Your task to perform on an android device: find photos in the google photos app Image 0: 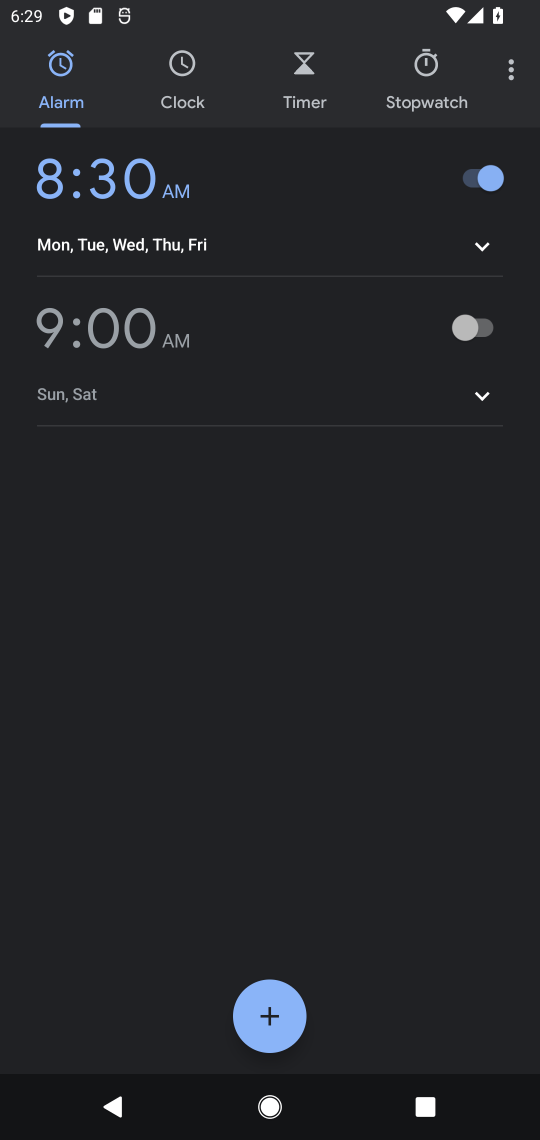
Step 0: press home button
Your task to perform on an android device: find photos in the google photos app Image 1: 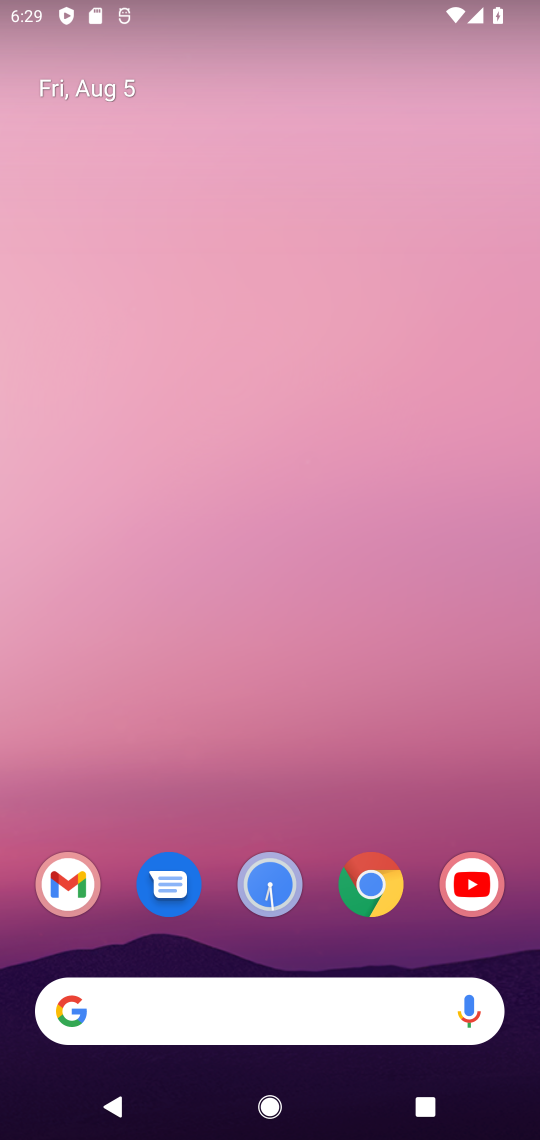
Step 1: drag from (326, 841) to (119, 3)
Your task to perform on an android device: find photos in the google photos app Image 2: 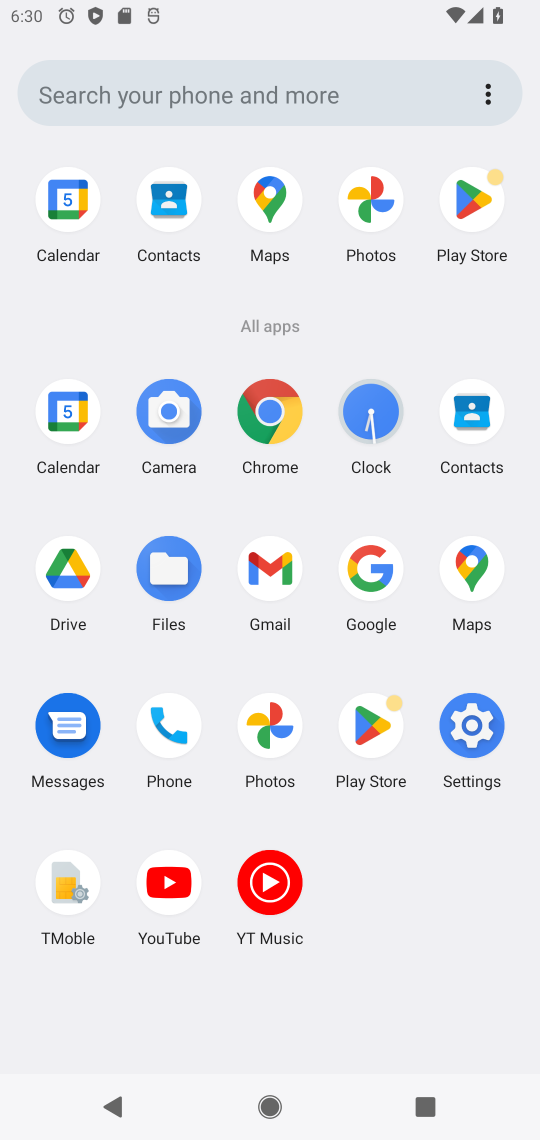
Step 2: click (265, 717)
Your task to perform on an android device: find photos in the google photos app Image 3: 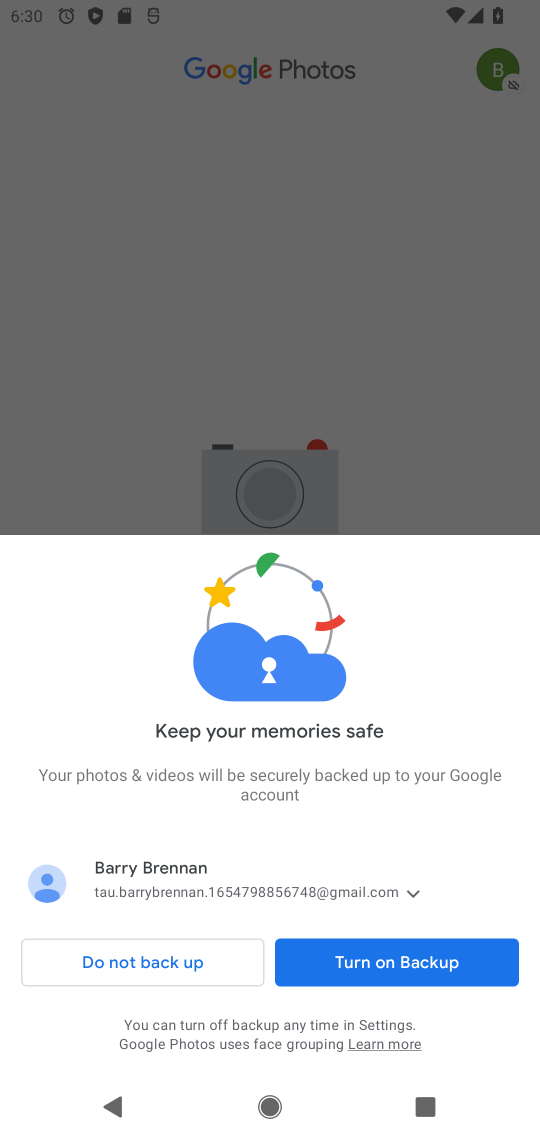
Step 3: click (393, 952)
Your task to perform on an android device: find photos in the google photos app Image 4: 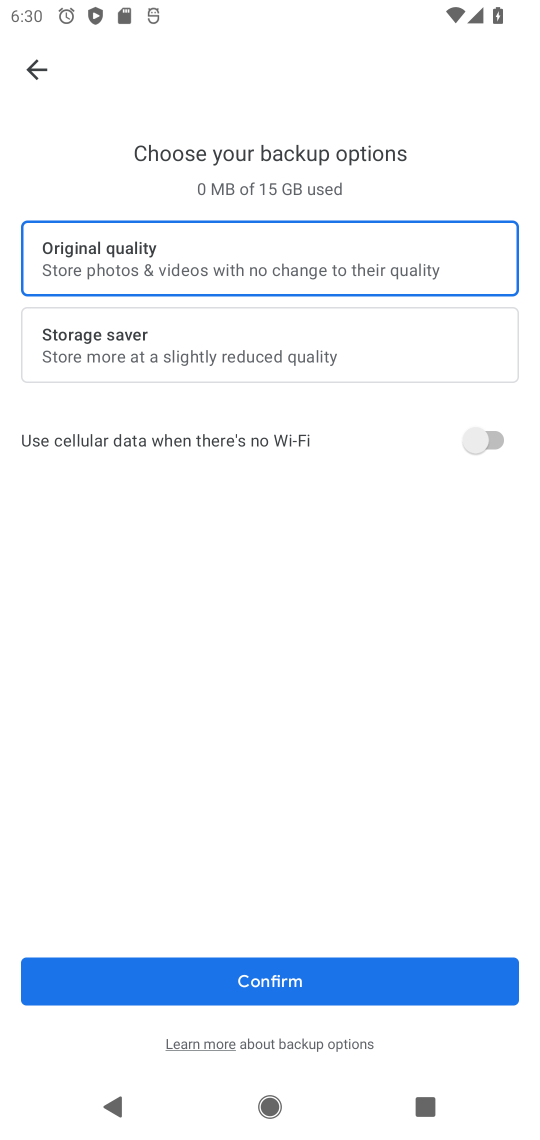
Step 4: click (204, 349)
Your task to perform on an android device: find photos in the google photos app Image 5: 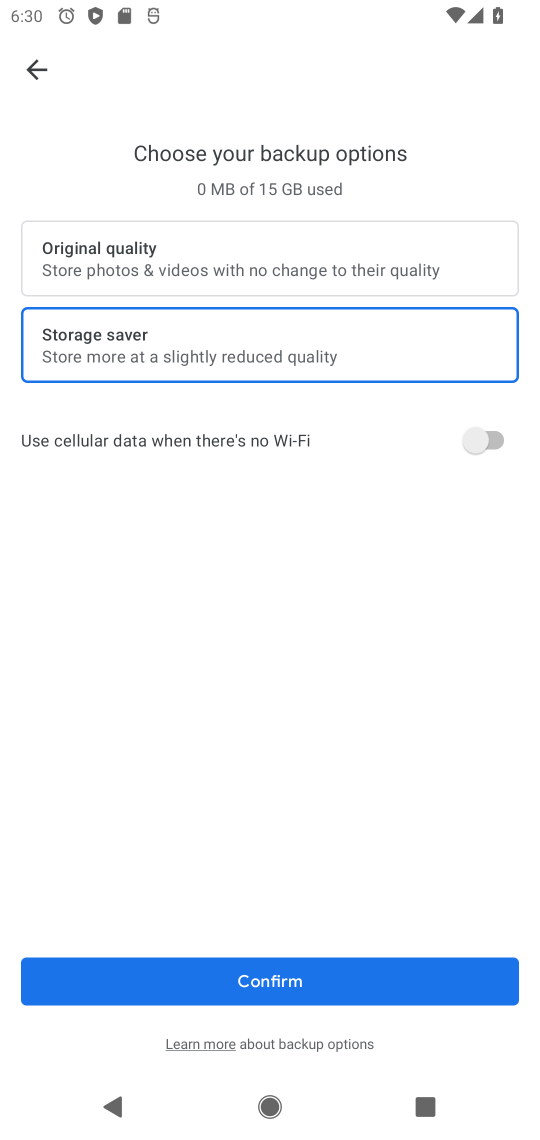
Step 5: click (252, 977)
Your task to perform on an android device: find photos in the google photos app Image 6: 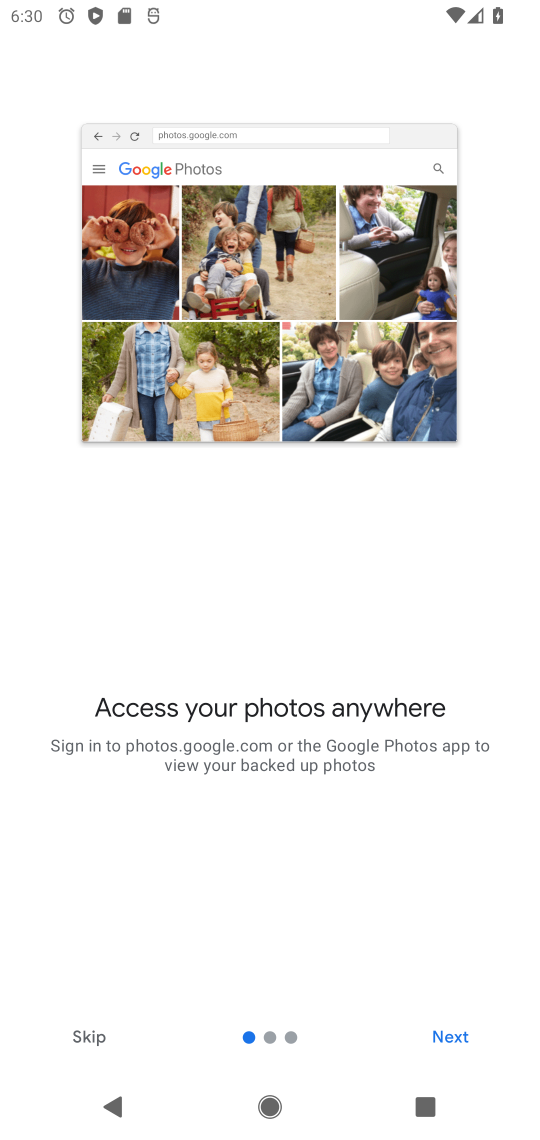
Step 6: click (93, 1034)
Your task to perform on an android device: find photos in the google photos app Image 7: 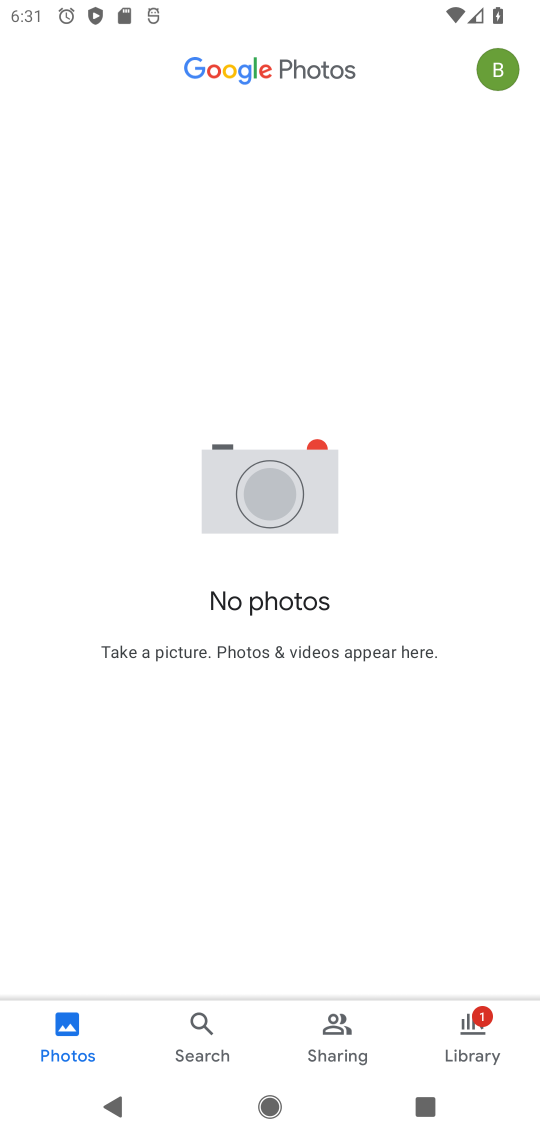
Step 7: task complete